Your task to perform on an android device: check battery use Image 0: 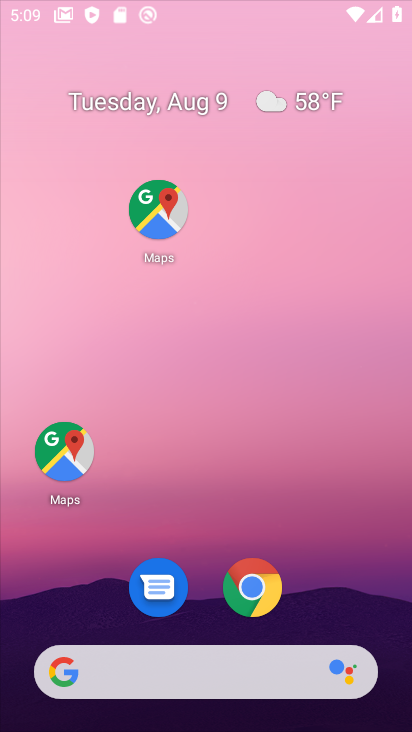
Step 0: drag from (65, 692) to (83, 236)
Your task to perform on an android device: check battery use Image 1: 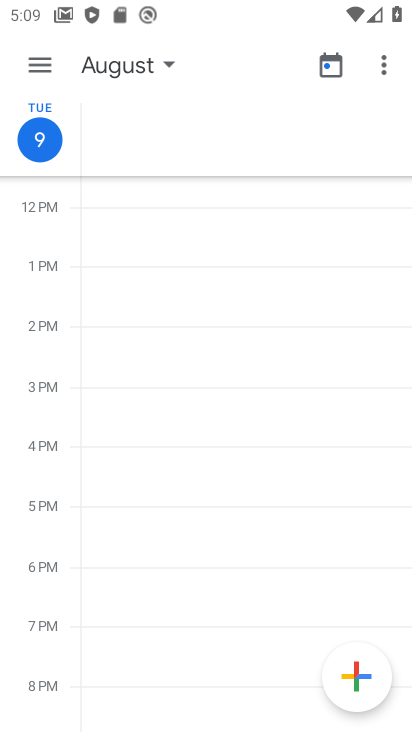
Step 1: drag from (216, 606) to (176, 133)
Your task to perform on an android device: check battery use Image 2: 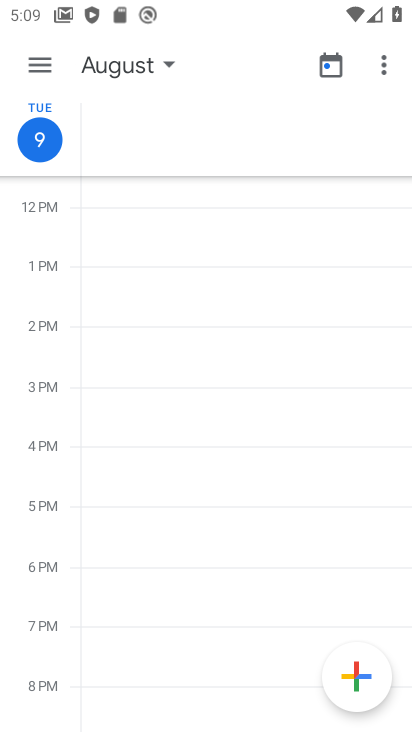
Step 2: press back button
Your task to perform on an android device: check battery use Image 3: 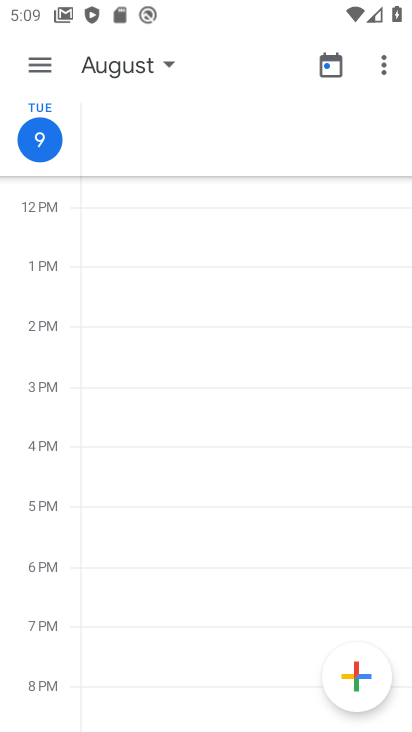
Step 3: press back button
Your task to perform on an android device: check battery use Image 4: 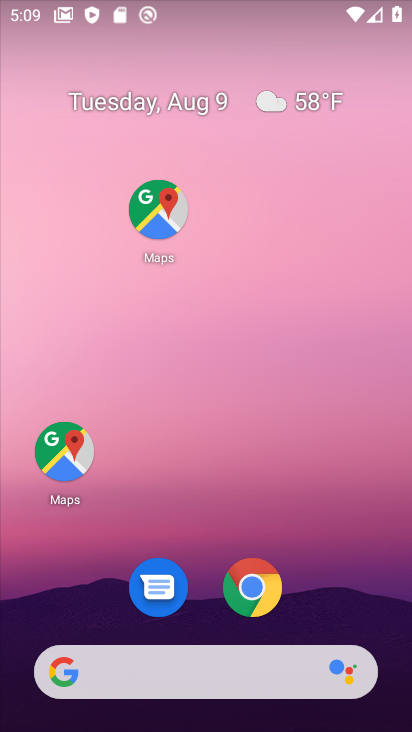
Step 4: drag from (278, 492) to (272, 62)
Your task to perform on an android device: check battery use Image 5: 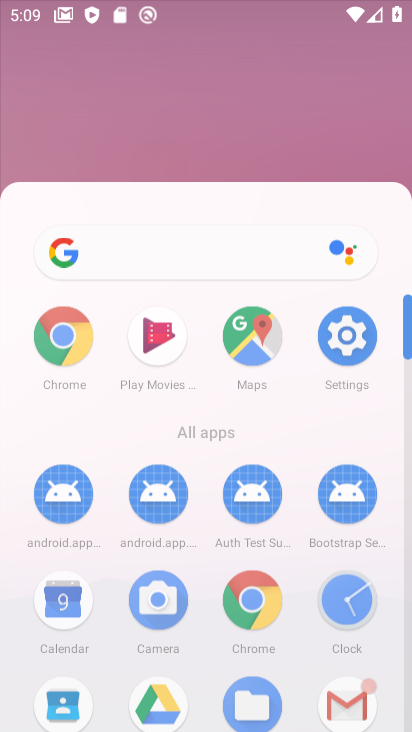
Step 5: drag from (252, 505) to (200, 48)
Your task to perform on an android device: check battery use Image 6: 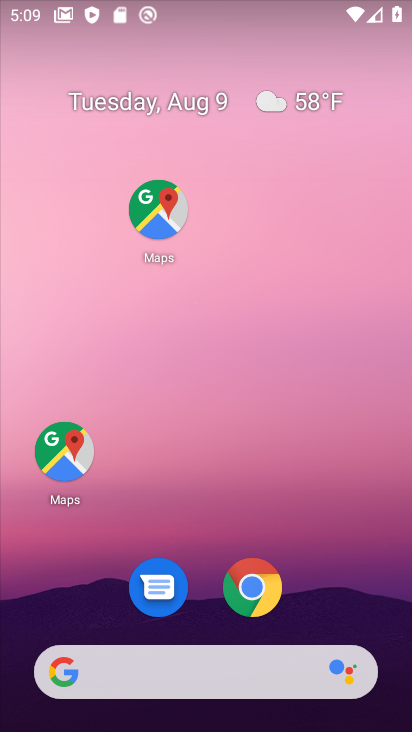
Step 6: click (346, 153)
Your task to perform on an android device: check battery use Image 7: 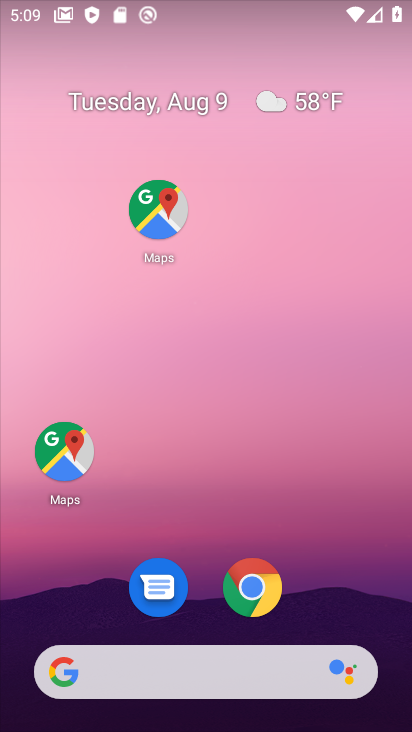
Step 7: click (348, 157)
Your task to perform on an android device: check battery use Image 8: 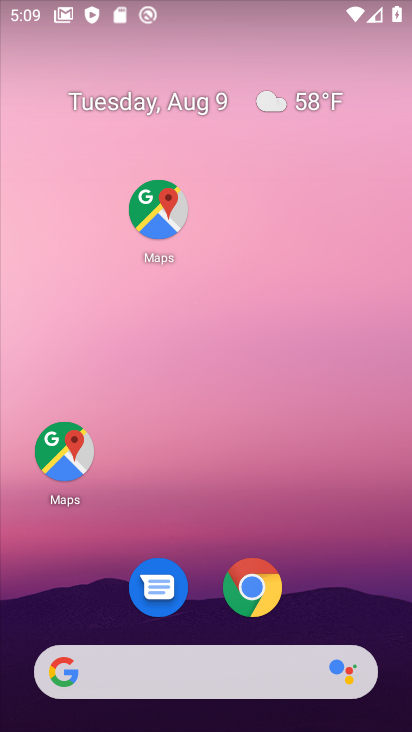
Step 8: click (352, 168)
Your task to perform on an android device: check battery use Image 9: 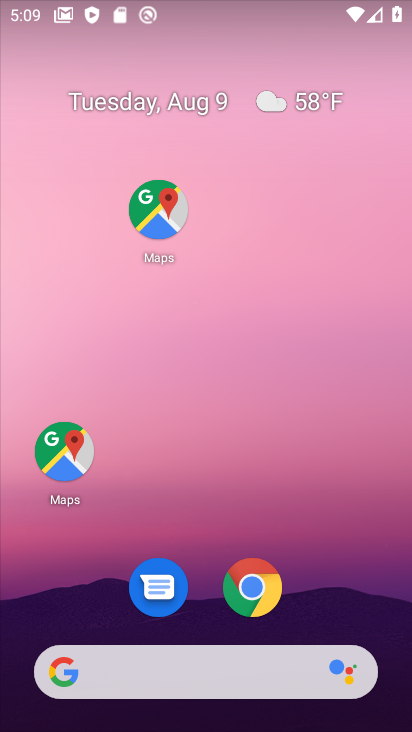
Step 9: drag from (147, 639) to (216, 181)
Your task to perform on an android device: check battery use Image 10: 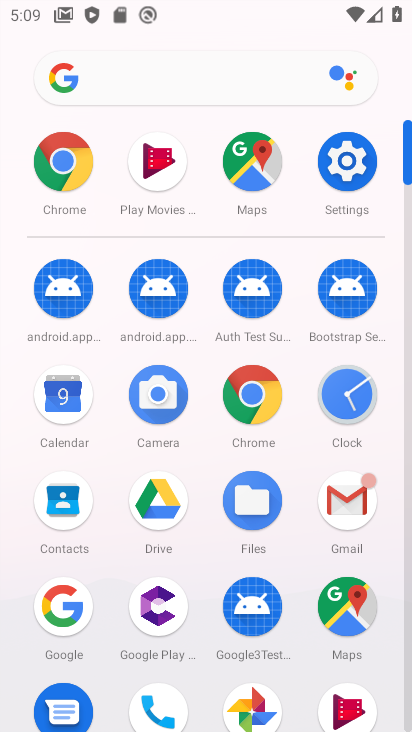
Step 10: drag from (283, 496) to (235, 161)
Your task to perform on an android device: check battery use Image 11: 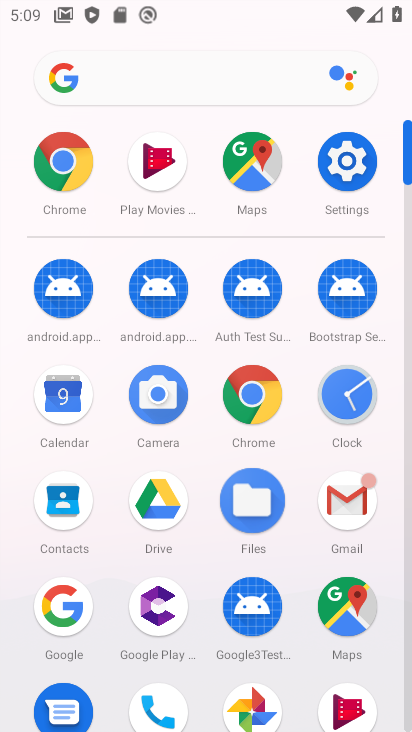
Step 11: click (345, 174)
Your task to perform on an android device: check battery use Image 12: 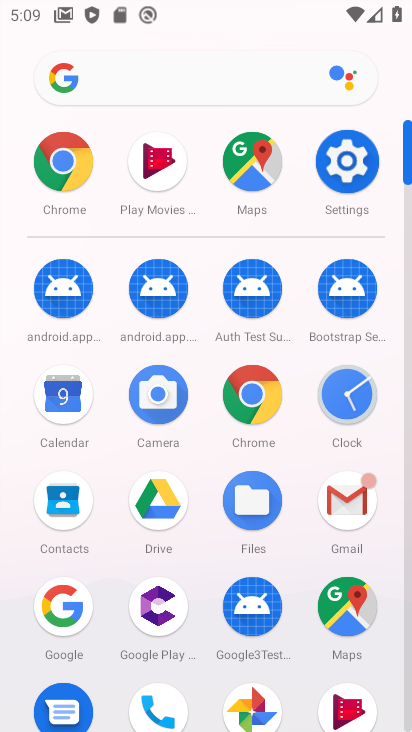
Step 12: click (343, 174)
Your task to perform on an android device: check battery use Image 13: 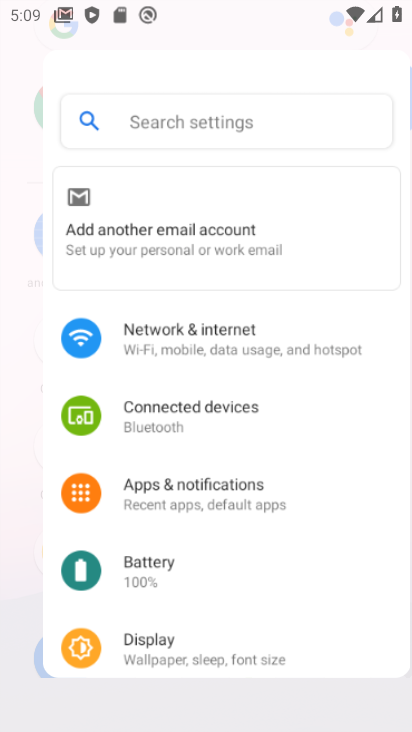
Step 13: click (343, 174)
Your task to perform on an android device: check battery use Image 14: 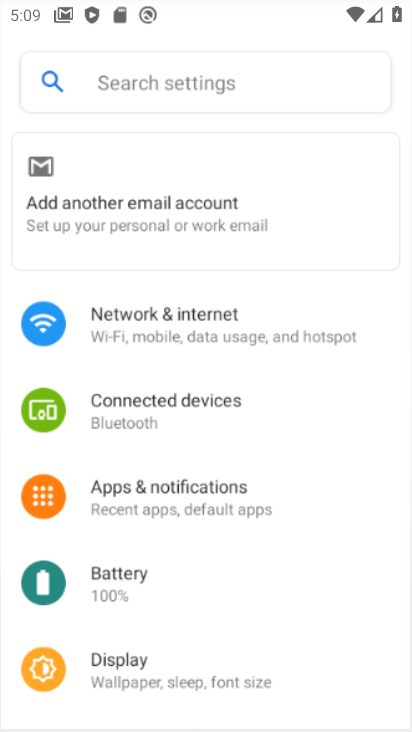
Step 14: click (342, 174)
Your task to perform on an android device: check battery use Image 15: 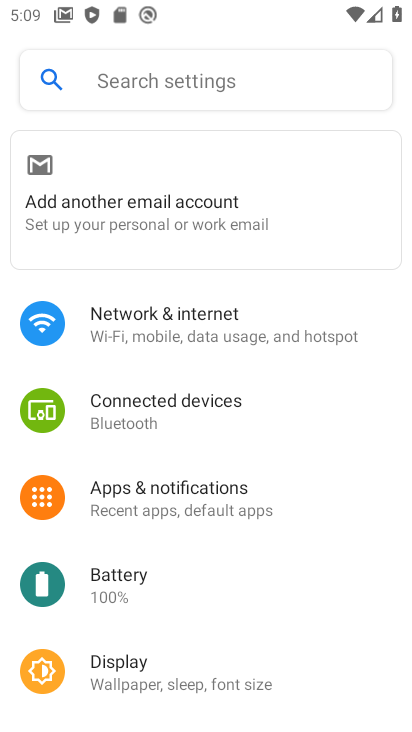
Step 15: click (113, 585)
Your task to perform on an android device: check battery use Image 16: 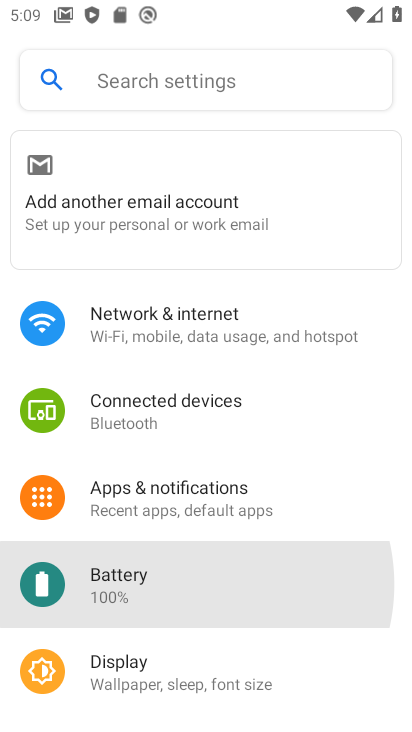
Step 16: click (113, 584)
Your task to perform on an android device: check battery use Image 17: 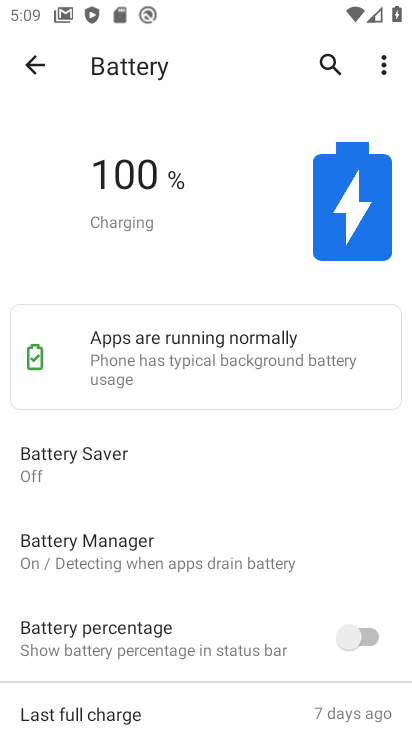
Step 17: task complete